Your task to perform on an android device: turn off improve location accuracy Image 0: 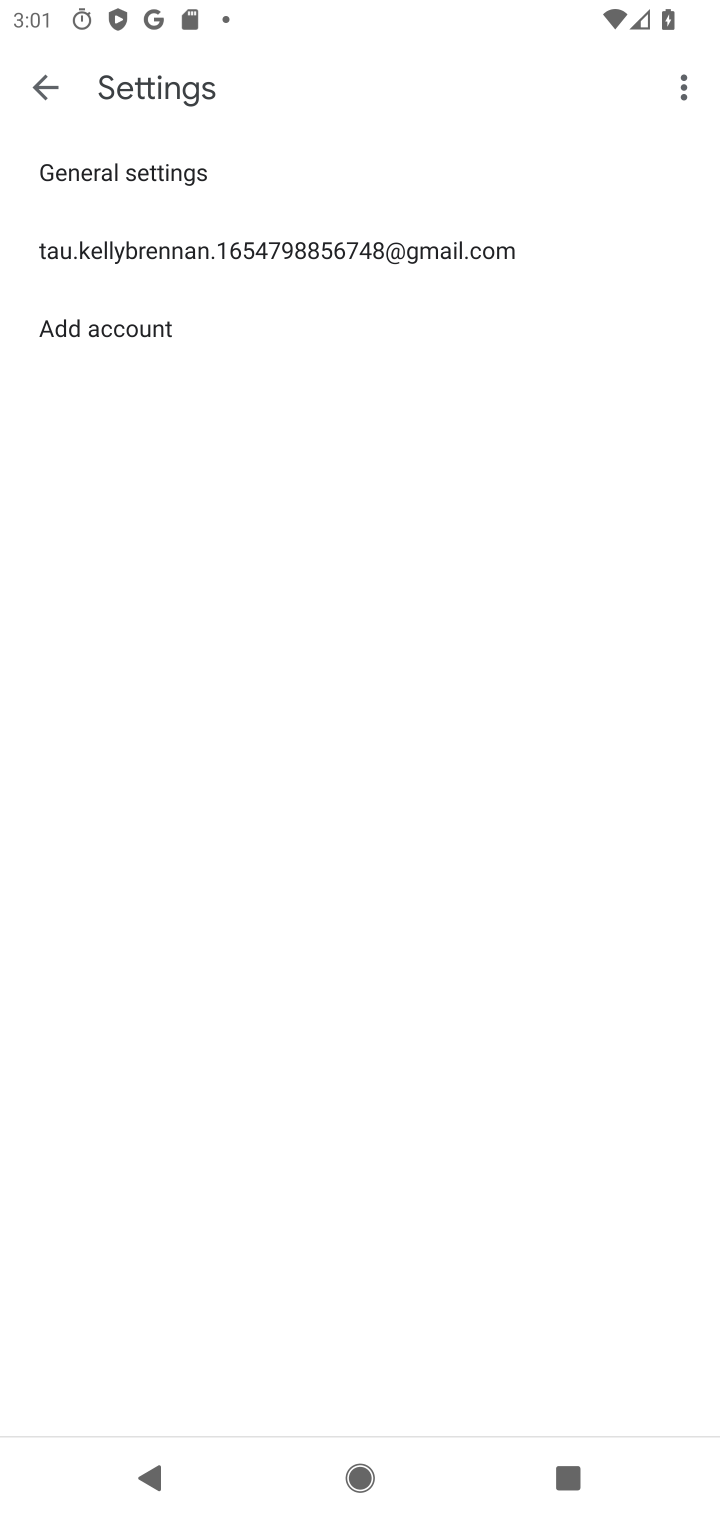
Step 0: press back button
Your task to perform on an android device: turn off improve location accuracy Image 1: 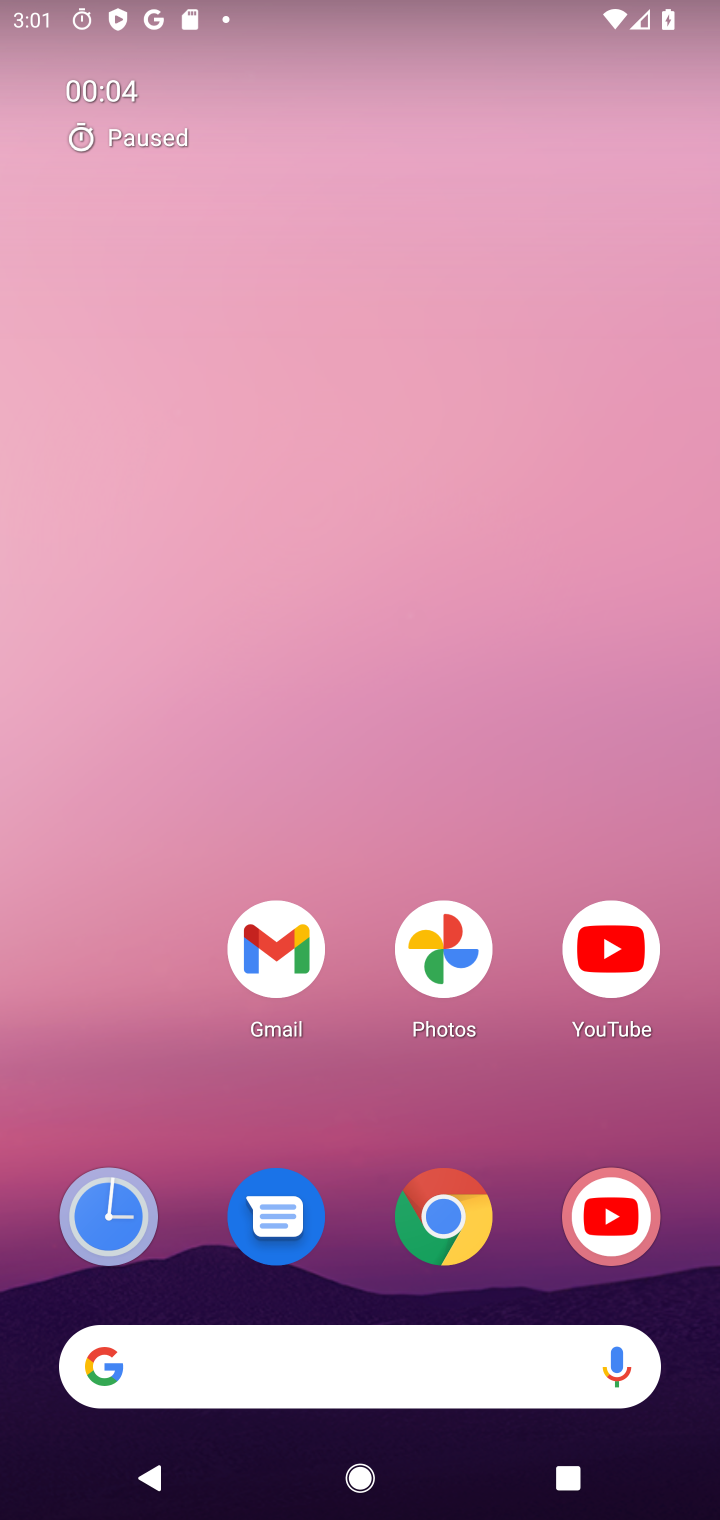
Step 1: press back button
Your task to perform on an android device: turn off improve location accuracy Image 2: 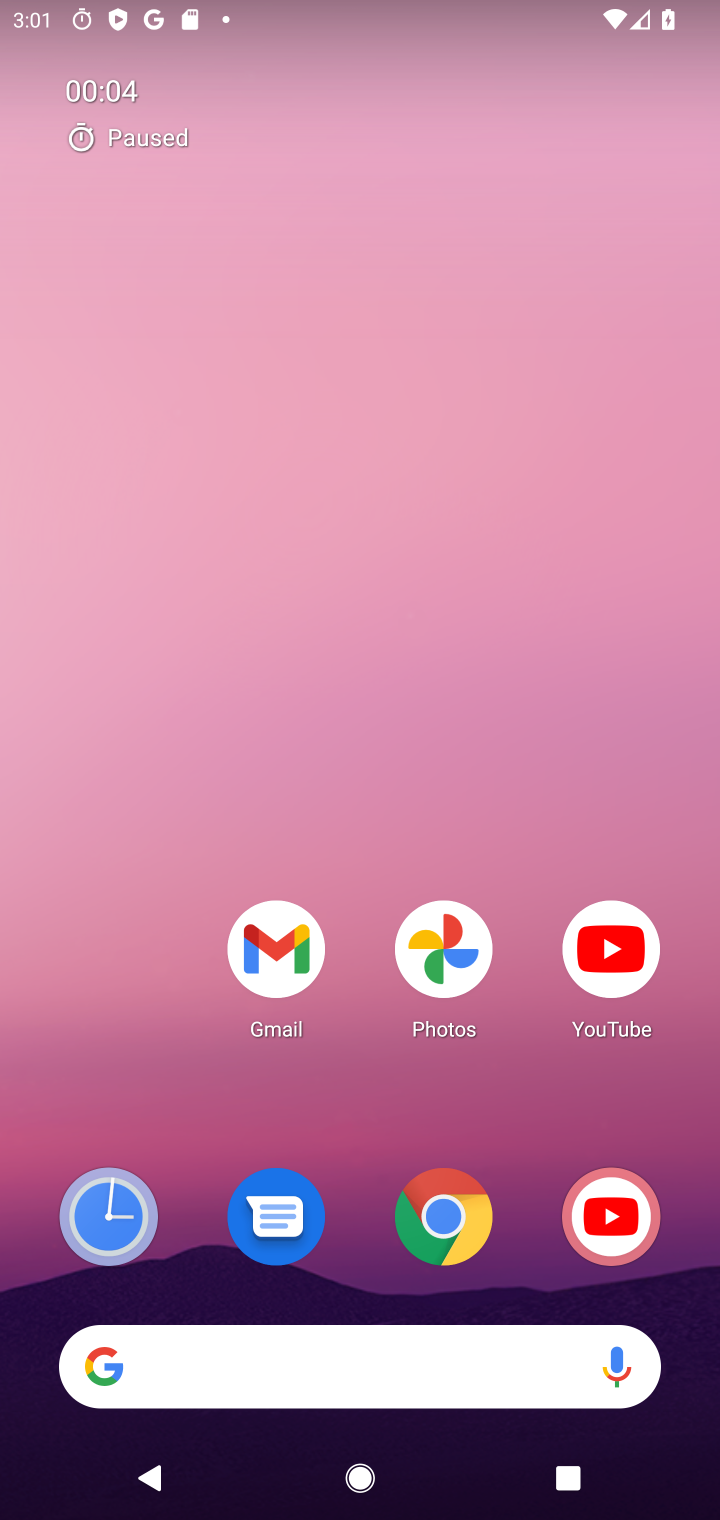
Step 2: drag from (171, 1126) to (328, 9)
Your task to perform on an android device: turn off improve location accuracy Image 3: 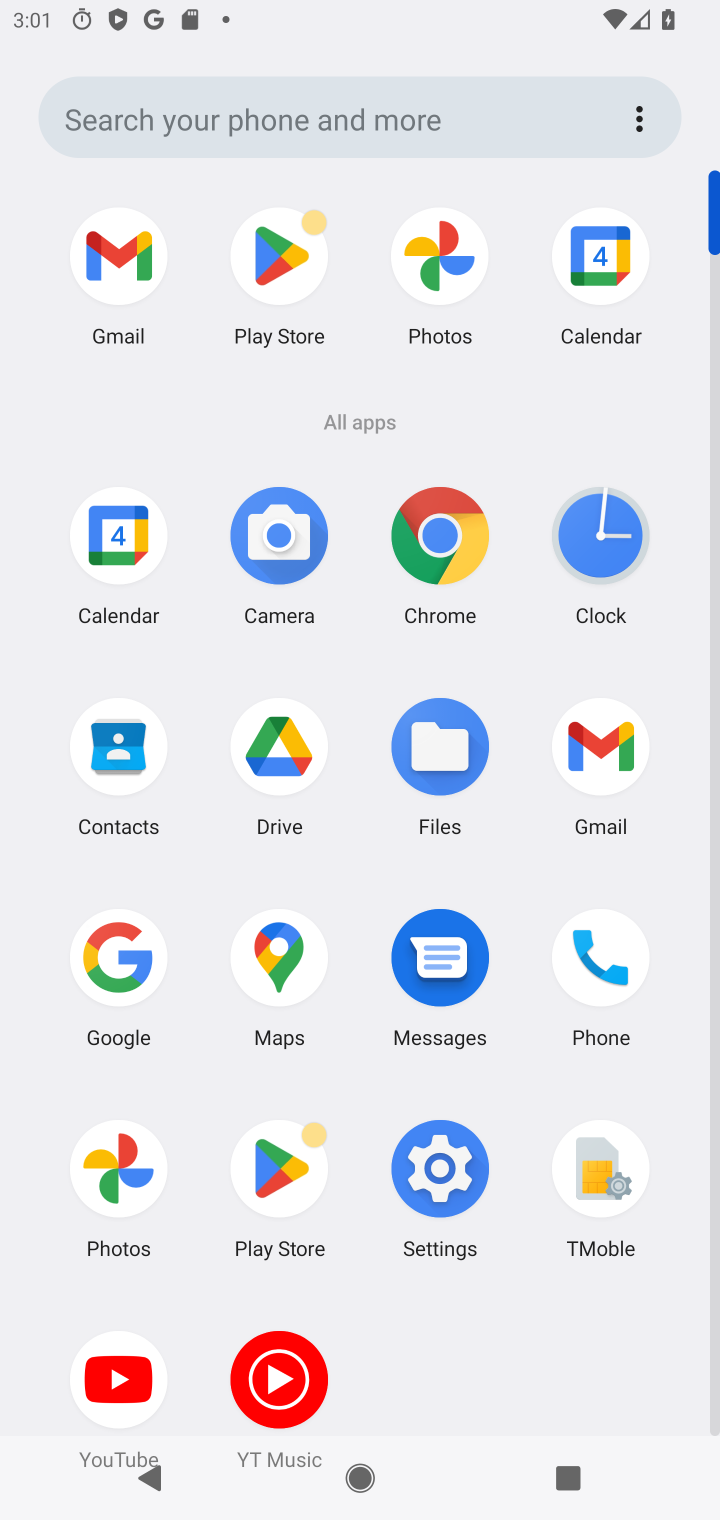
Step 3: click (428, 1157)
Your task to perform on an android device: turn off improve location accuracy Image 4: 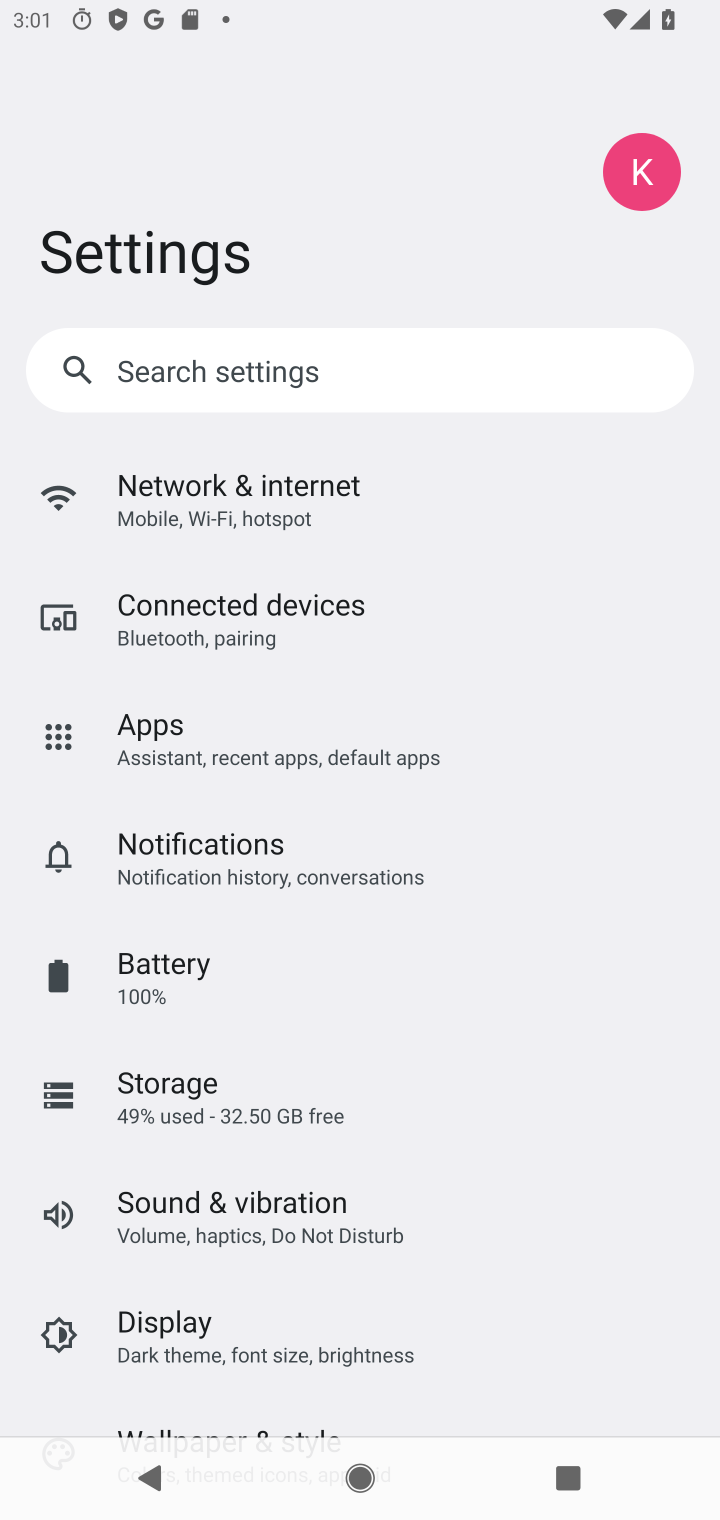
Step 4: drag from (265, 1317) to (472, 388)
Your task to perform on an android device: turn off improve location accuracy Image 5: 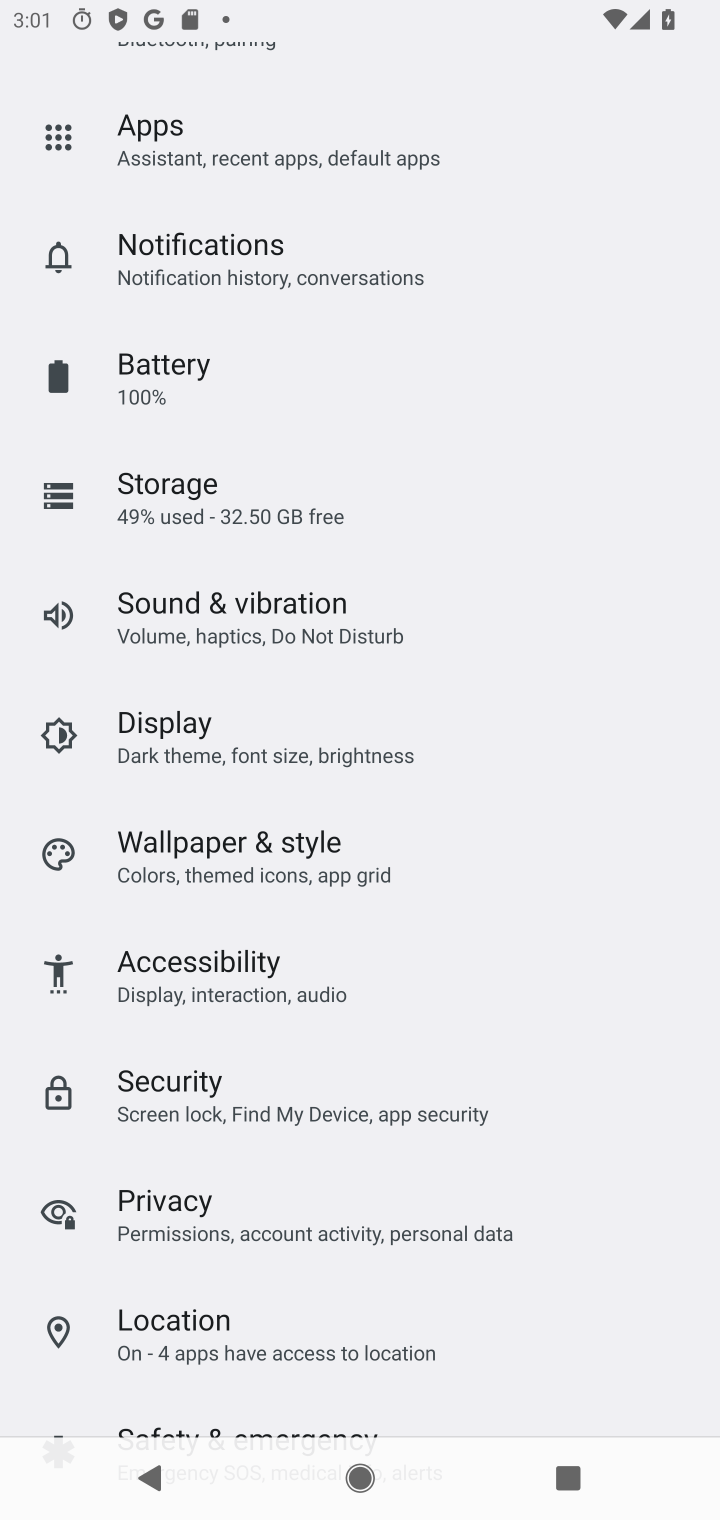
Step 5: click (212, 1323)
Your task to perform on an android device: turn off improve location accuracy Image 6: 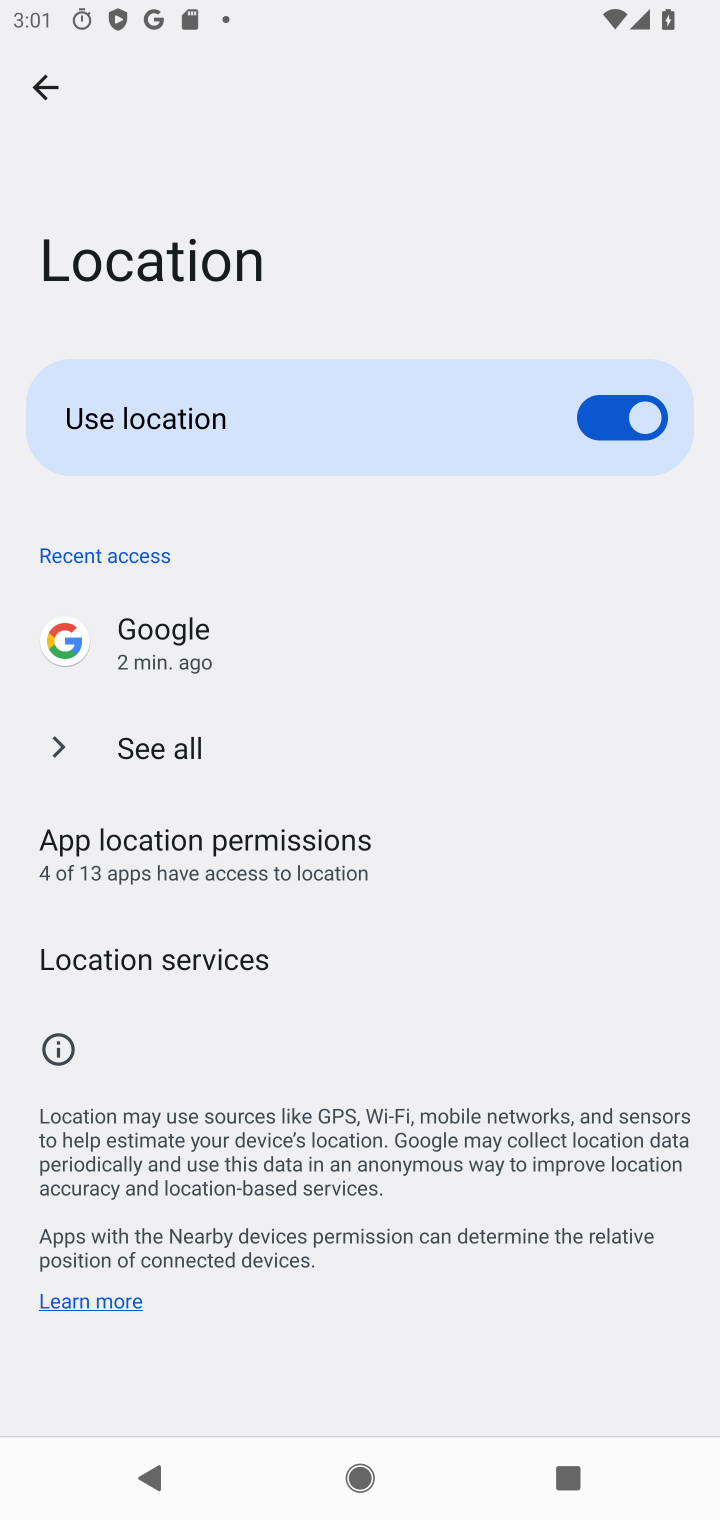
Step 6: click (194, 974)
Your task to perform on an android device: turn off improve location accuracy Image 7: 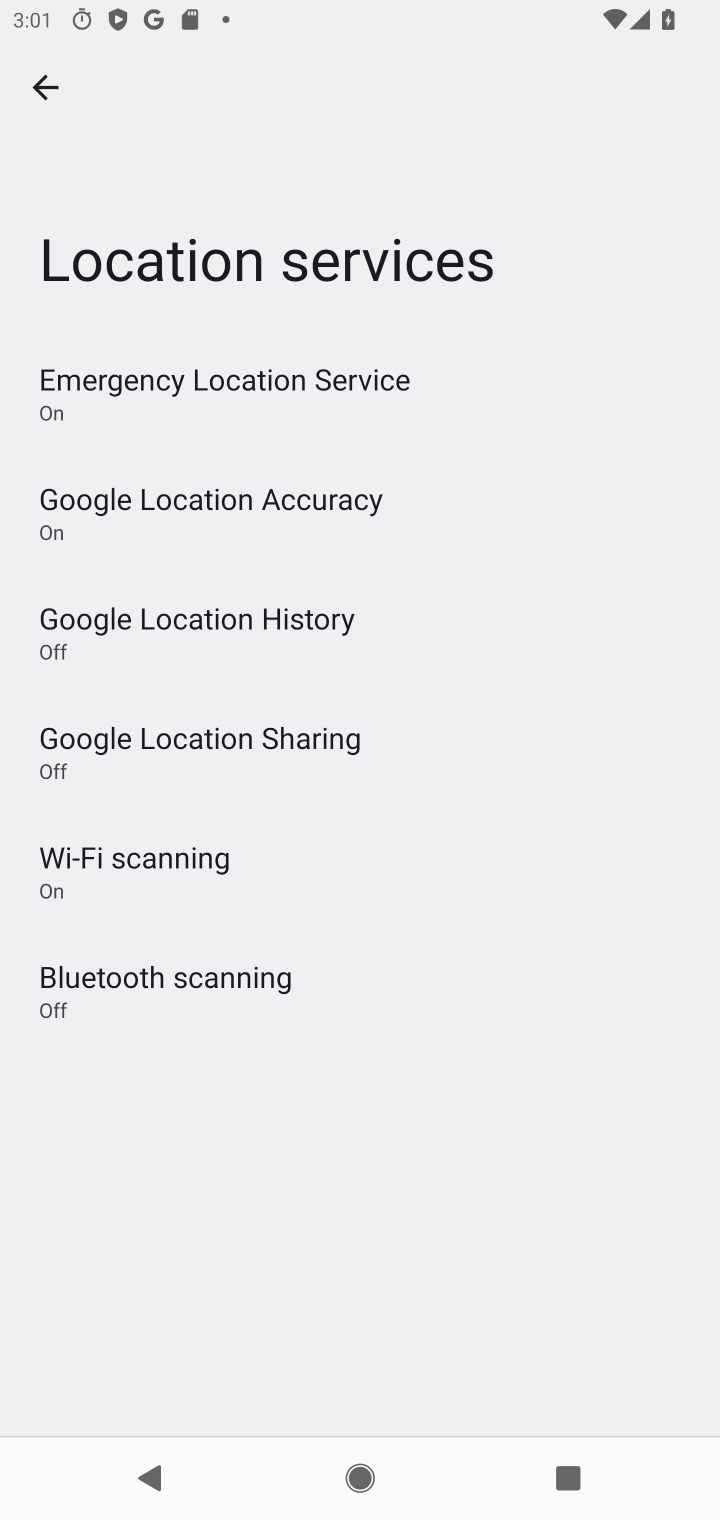
Step 7: click (234, 514)
Your task to perform on an android device: turn off improve location accuracy Image 8: 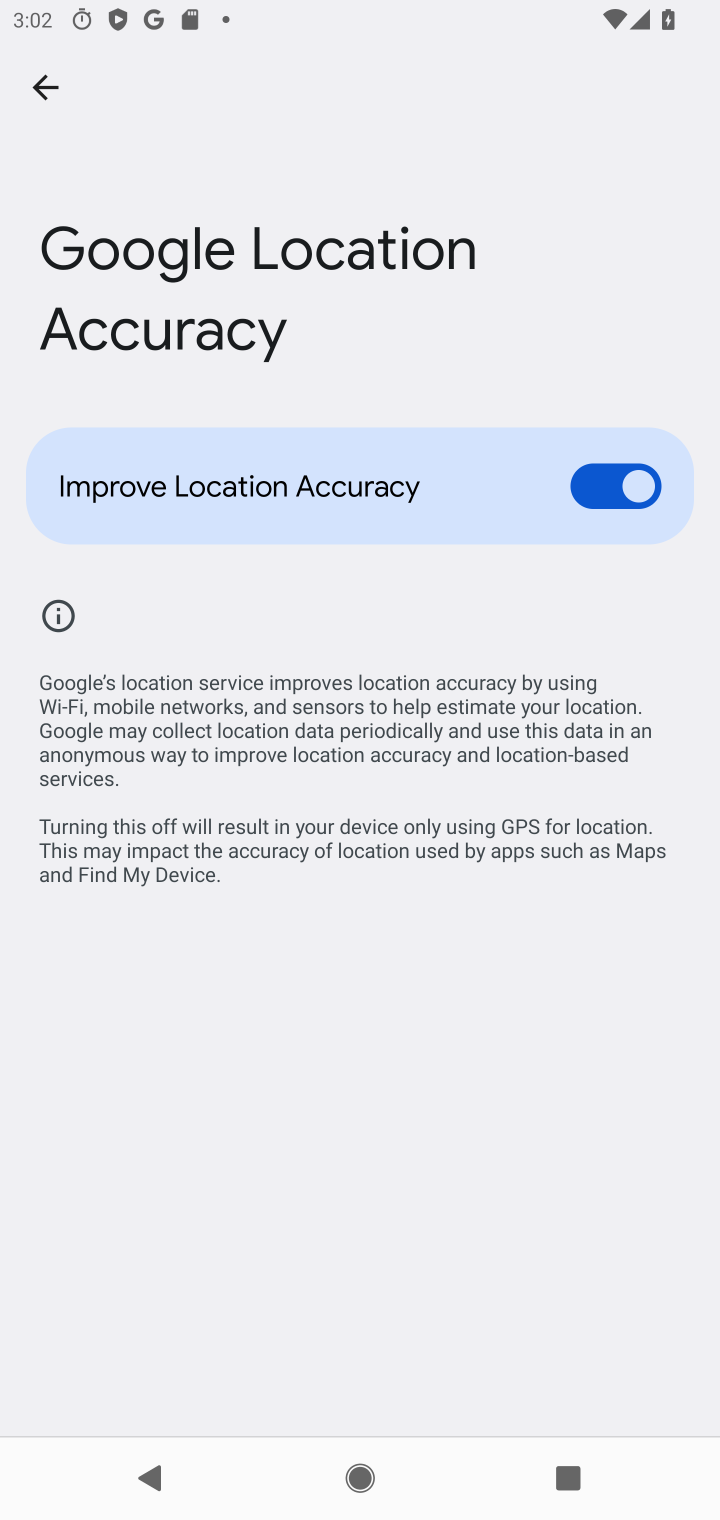
Step 8: click (632, 484)
Your task to perform on an android device: turn off improve location accuracy Image 9: 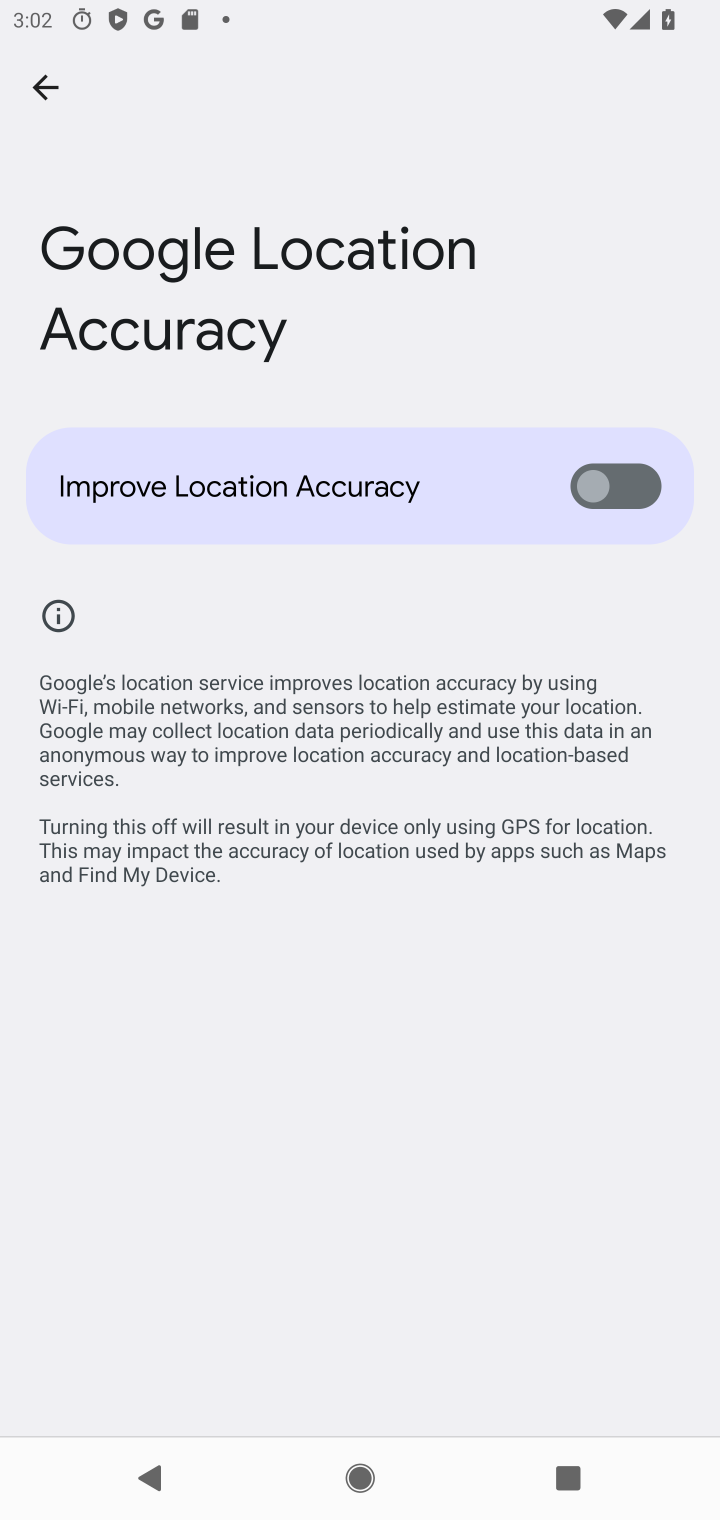
Step 9: task complete